Your task to perform on an android device: Do I have any events tomorrow? Image 0: 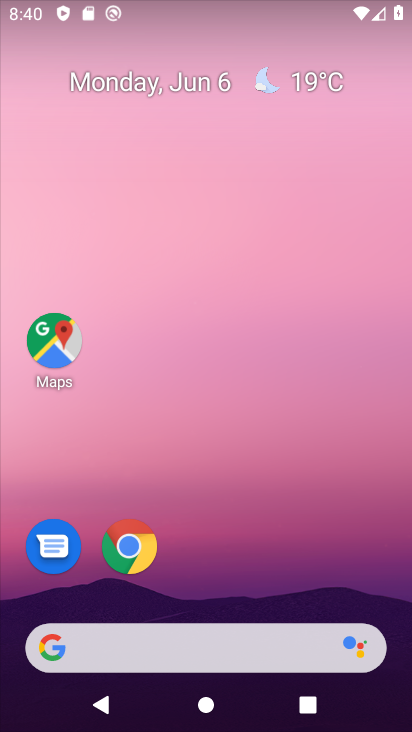
Step 0: drag from (163, 719) to (213, 131)
Your task to perform on an android device: Do I have any events tomorrow? Image 1: 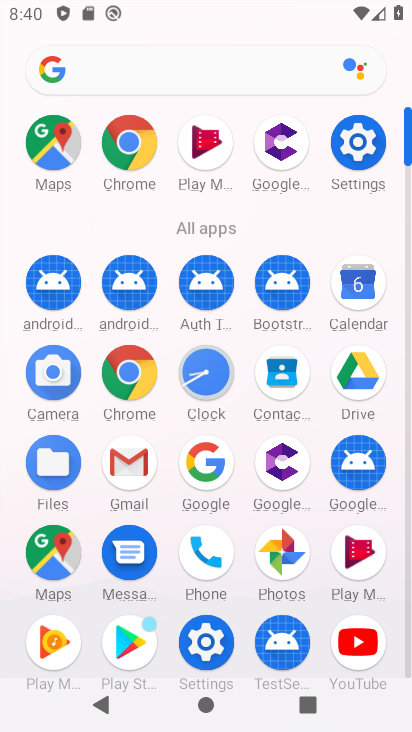
Step 1: click (337, 282)
Your task to perform on an android device: Do I have any events tomorrow? Image 2: 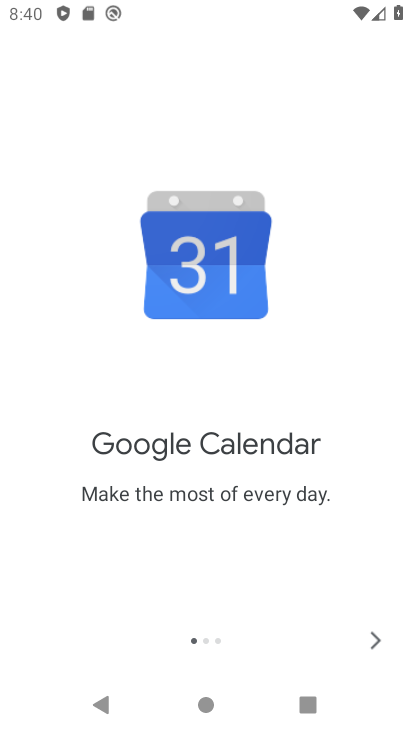
Step 2: click (361, 642)
Your task to perform on an android device: Do I have any events tomorrow? Image 3: 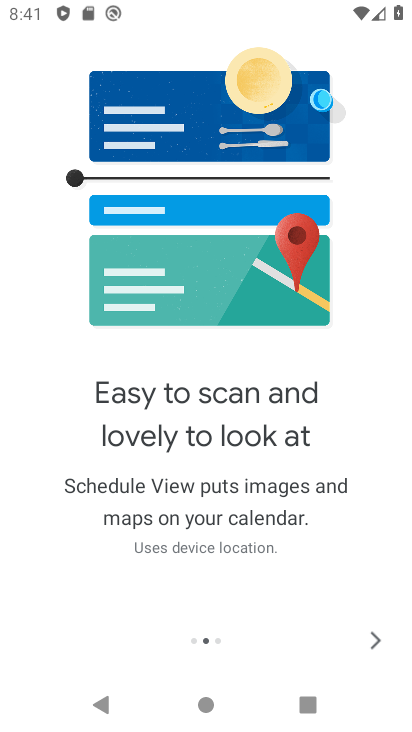
Step 3: click (360, 642)
Your task to perform on an android device: Do I have any events tomorrow? Image 4: 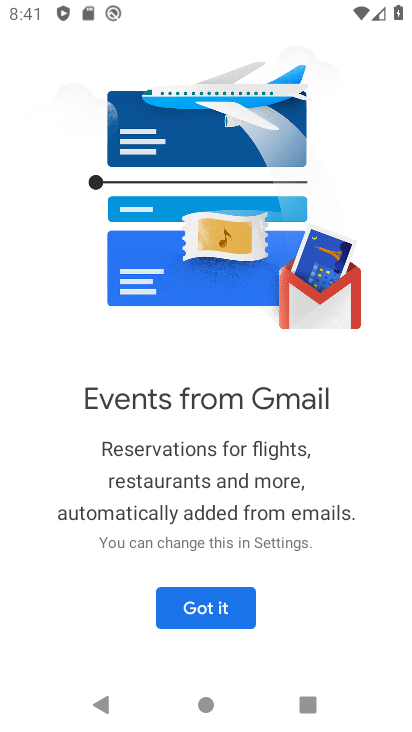
Step 4: click (238, 613)
Your task to perform on an android device: Do I have any events tomorrow? Image 5: 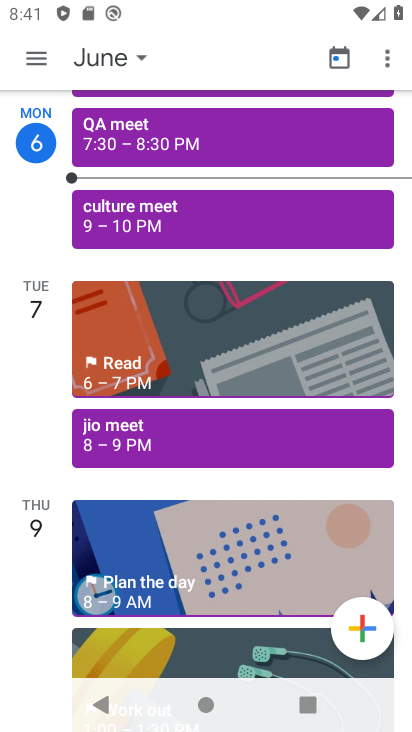
Step 5: click (161, 321)
Your task to perform on an android device: Do I have any events tomorrow? Image 6: 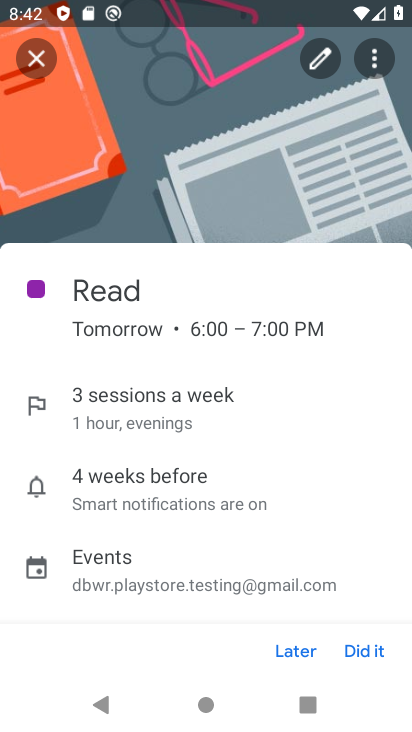
Step 6: task complete